Your task to perform on an android device: set default search engine in the chrome app Image 0: 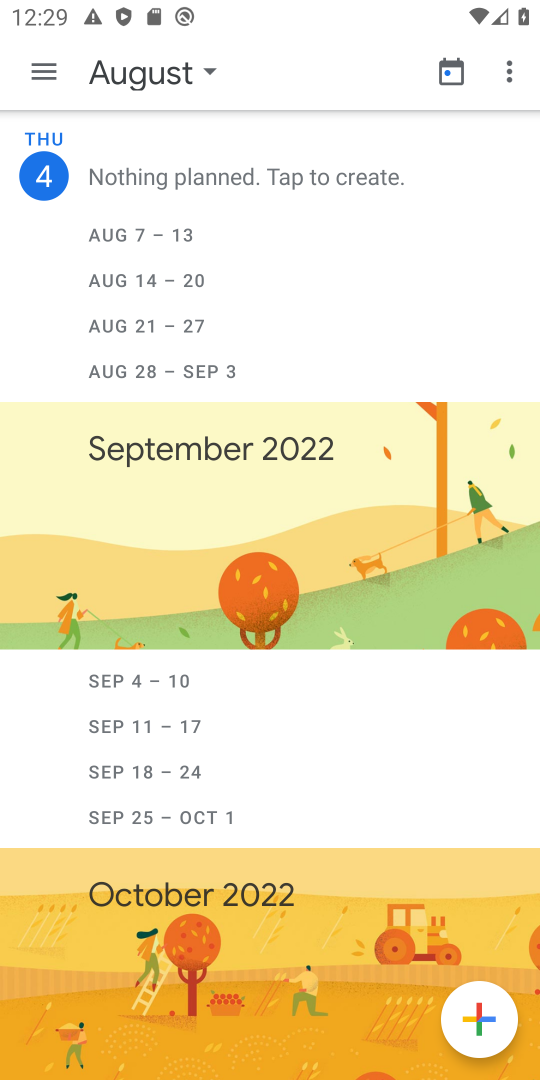
Step 0: press home button
Your task to perform on an android device: set default search engine in the chrome app Image 1: 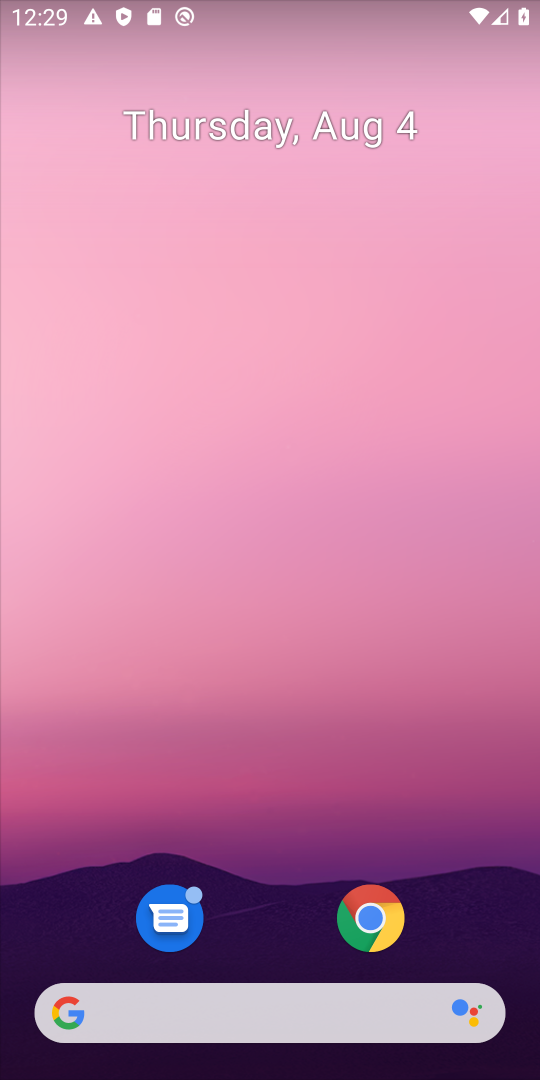
Step 1: click (375, 910)
Your task to perform on an android device: set default search engine in the chrome app Image 2: 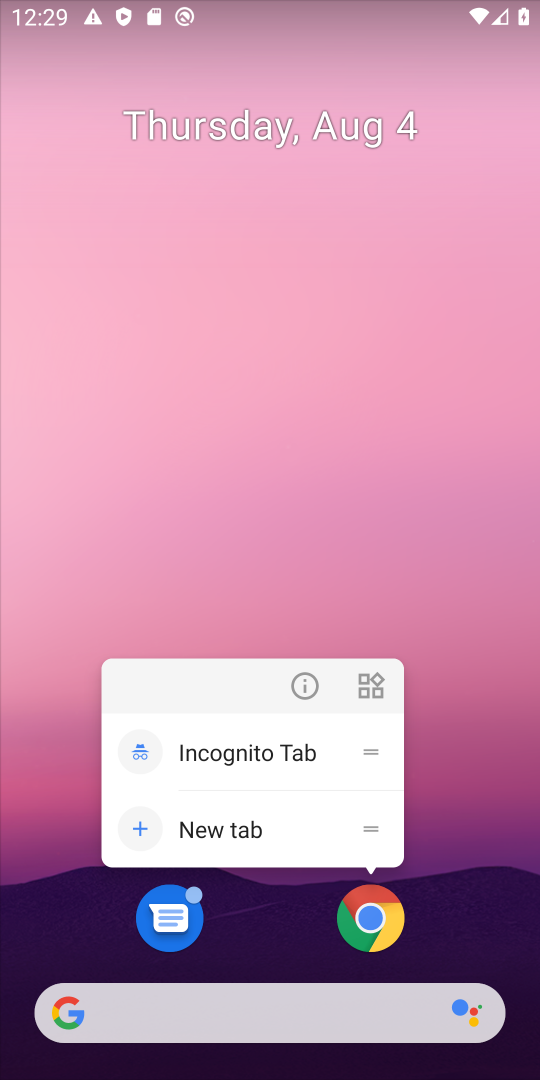
Step 2: click (326, 910)
Your task to perform on an android device: set default search engine in the chrome app Image 3: 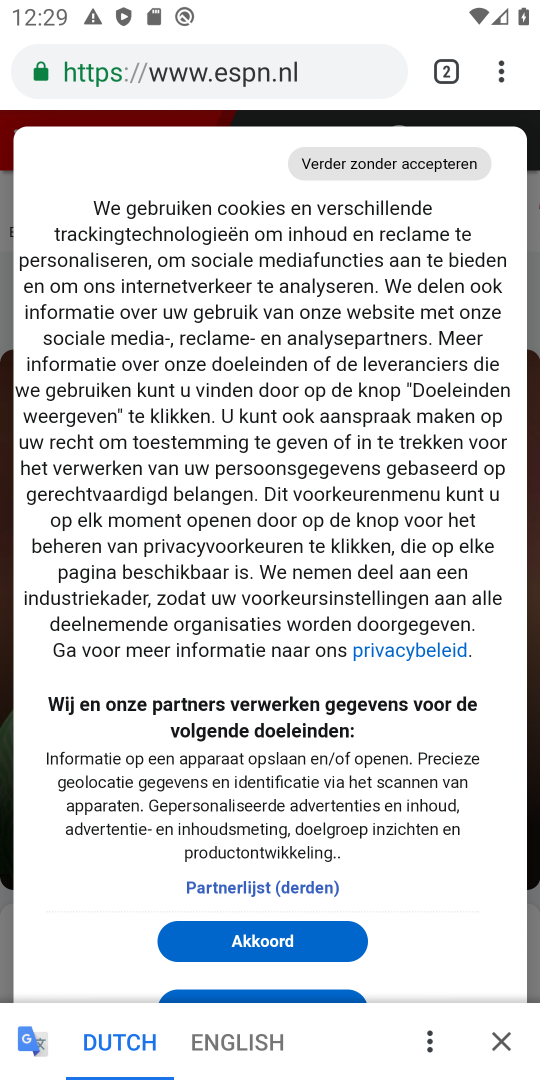
Step 3: click (502, 61)
Your task to perform on an android device: set default search engine in the chrome app Image 4: 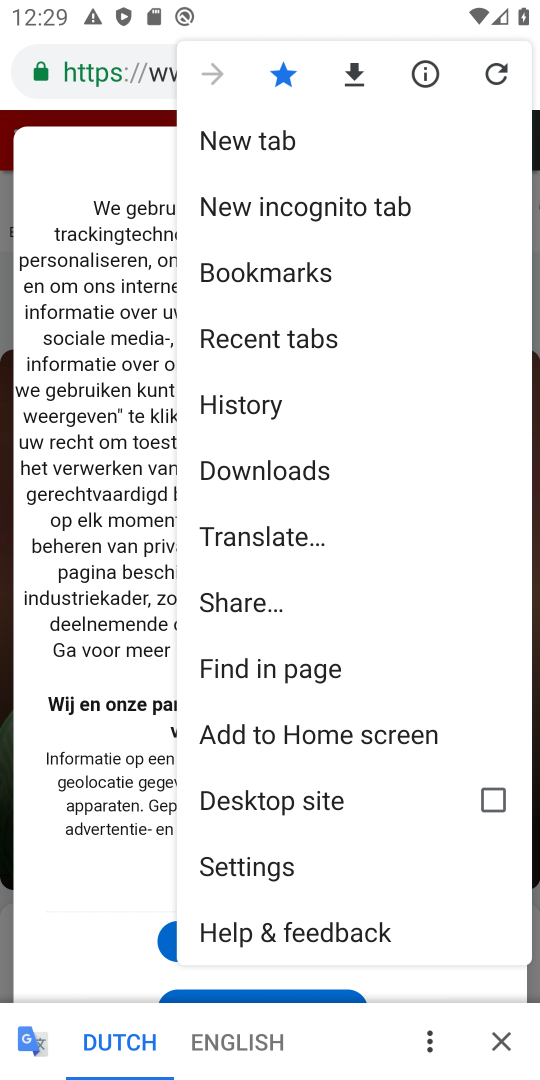
Step 4: click (258, 851)
Your task to perform on an android device: set default search engine in the chrome app Image 5: 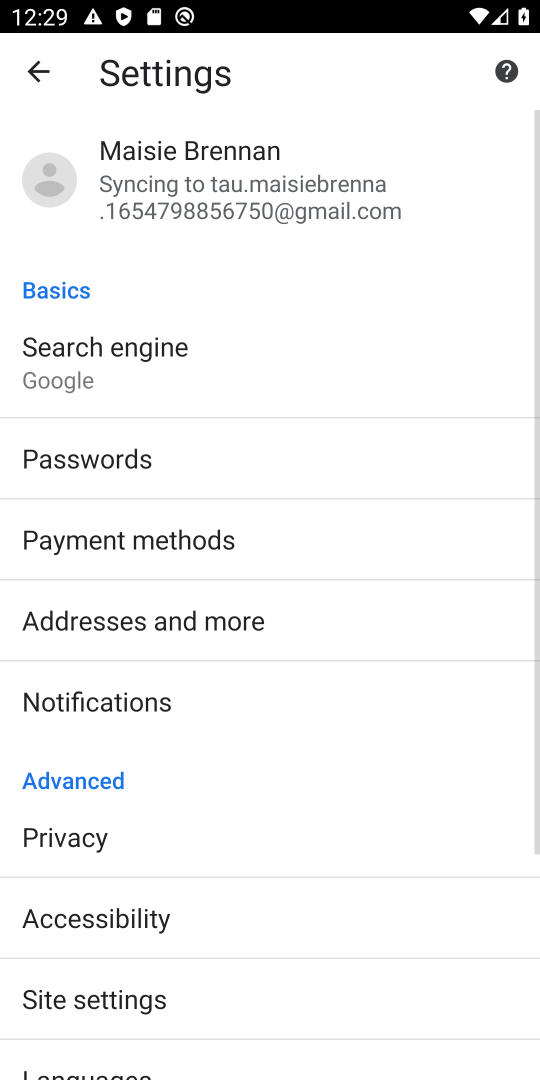
Step 5: click (103, 330)
Your task to perform on an android device: set default search engine in the chrome app Image 6: 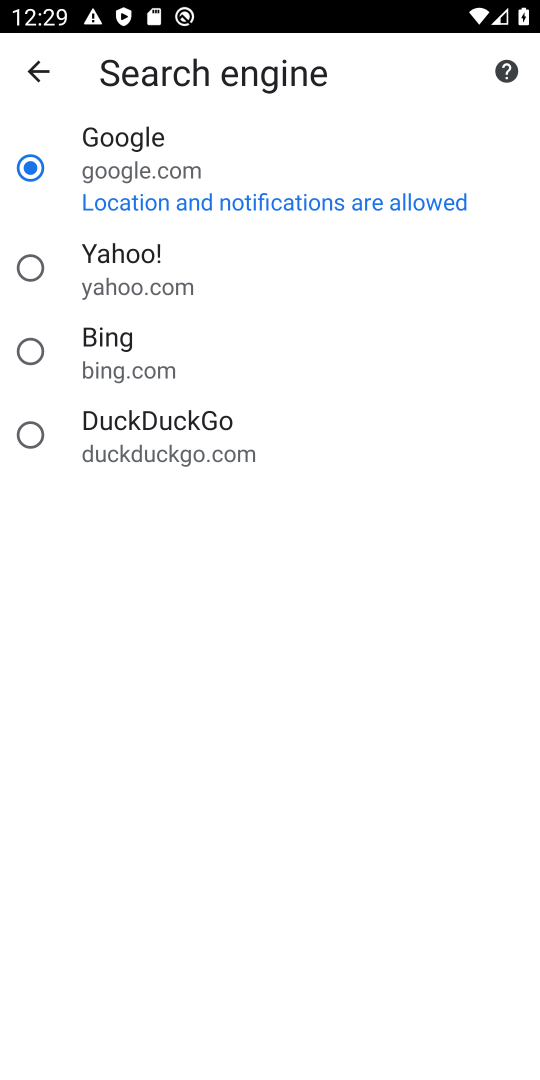
Step 6: task complete